Your task to perform on an android device: Search for vegetarian restaurants on Maps Image 0: 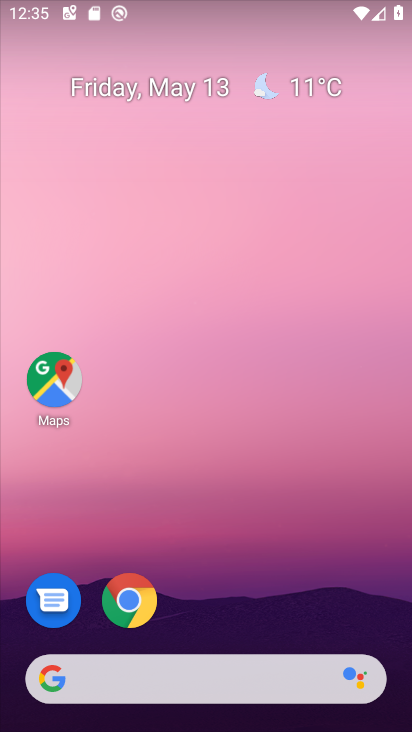
Step 0: click (212, 687)
Your task to perform on an android device: Search for vegetarian restaurants on Maps Image 1: 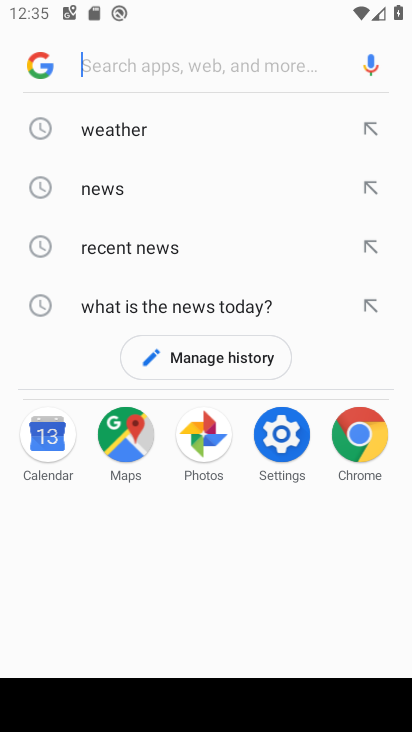
Step 1: type "vegetarian"
Your task to perform on an android device: Search for vegetarian restaurants on Maps Image 2: 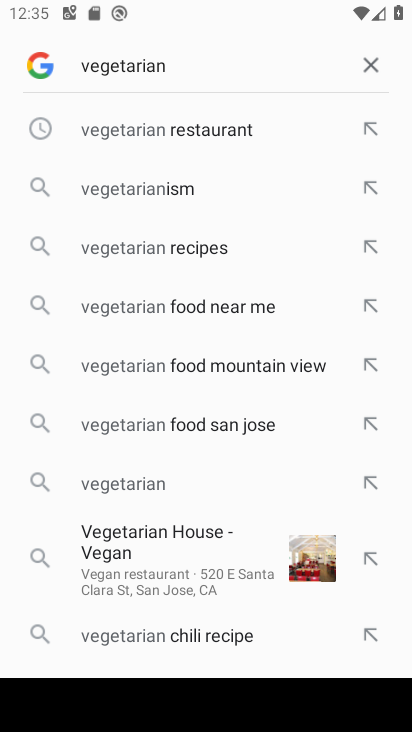
Step 2: click (194, 132)
Your task to perform on an android device: Search for vegetarian restaurants on Maps Image 3: 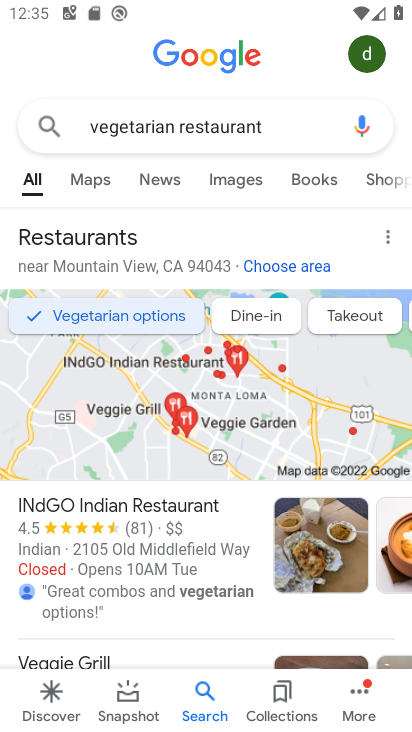
Step 3: task complete